Your task to perform on an android device: check android version Image 0: 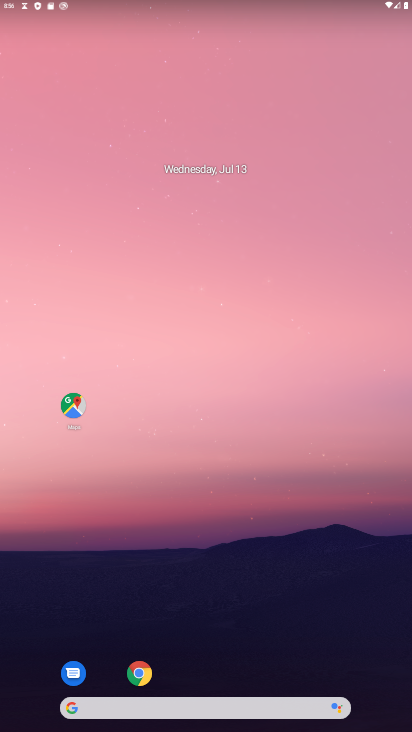
Step 0: drag from (210, 702) to (197, 397)
Your task to perform on an android device: check android version Image 1: 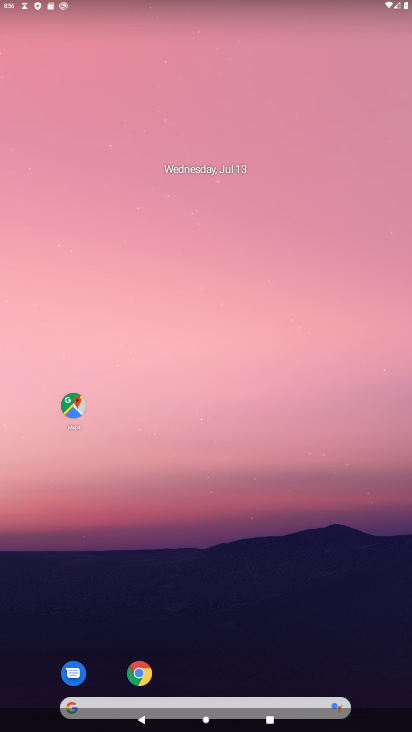
Step 1: drag from (223, 691) to (222, 241)
Your task to perform on an android device: check android version Image 2: 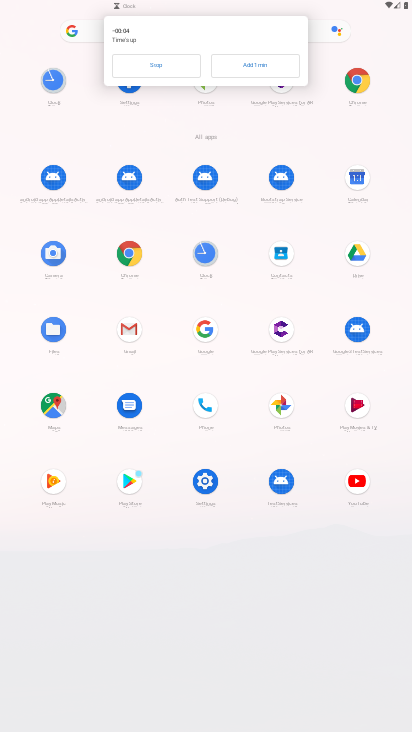
Step 2: click (151, 62)
Your task to perform on an android device: check android version Image 3: 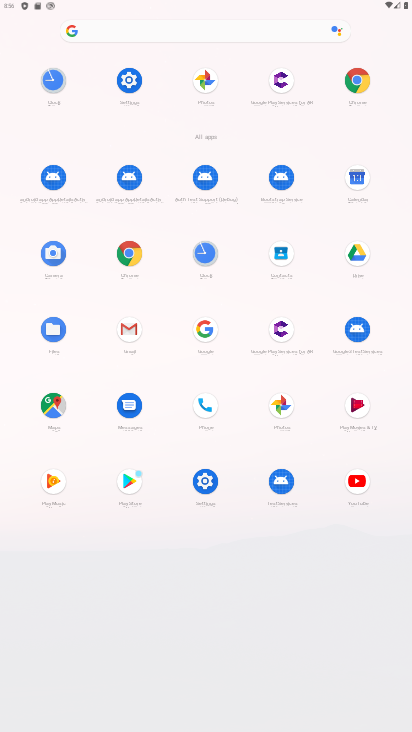
Step 3: click (128, 87)
Your task to perform on an android device: check android version Image 4: 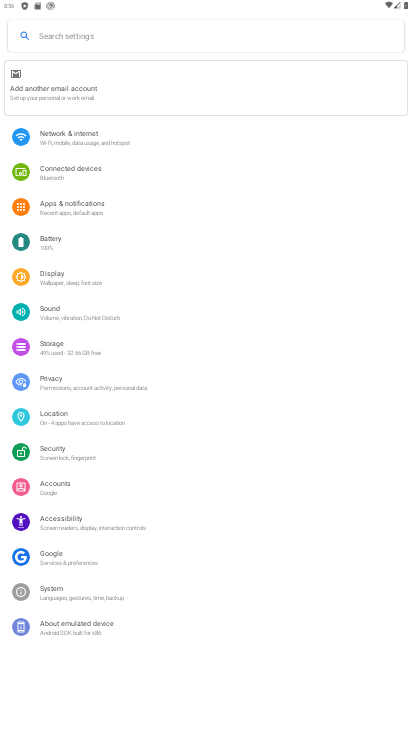
Step 4: click (84, 631)
Your task to perform on an android device: check android version Image 5: 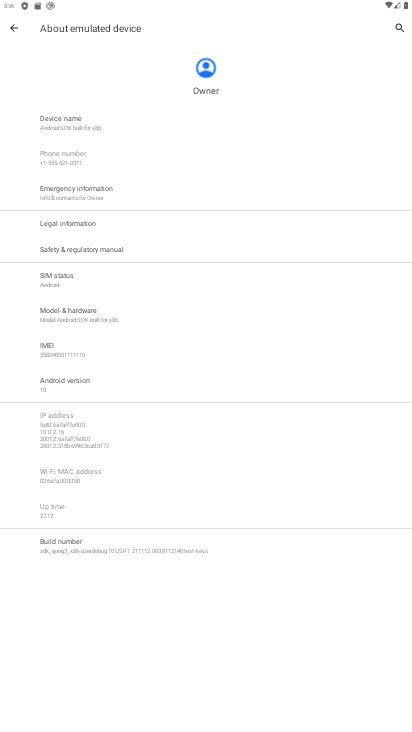
Step 5: click (42, 391)
Your task to perform on an android device: check android version Image 6: 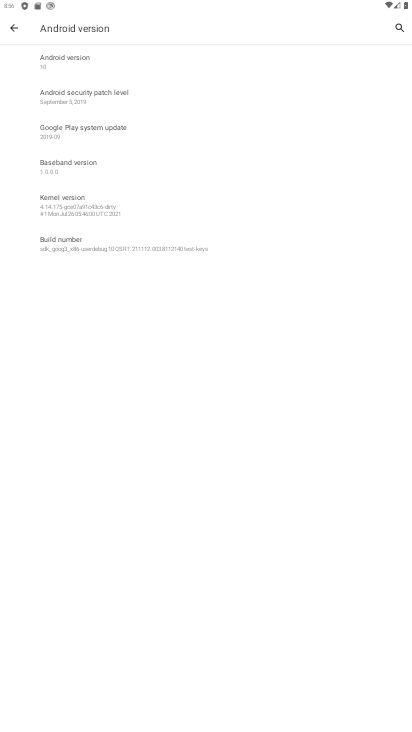
Step 6: task complete